Your task to perform on an android device: Go to Reddit.com Image 0: 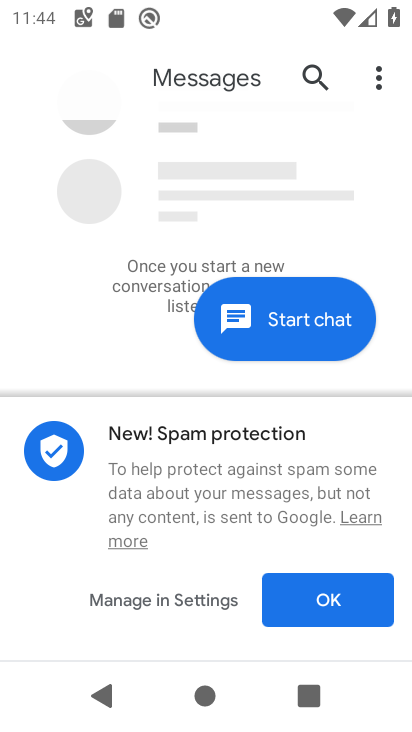
Step 0: press home button
Your task to perform on an android device: Go to Reddit.com Image 1: 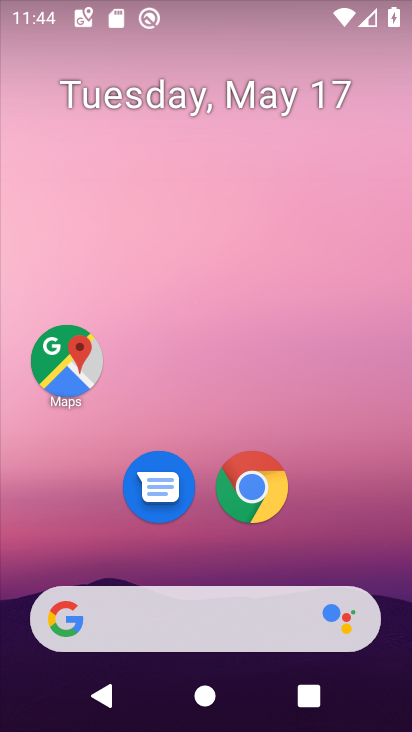
Step 1: click (240, 513)
Your task to perform on an android device: Go to Reddit.com Image 2: 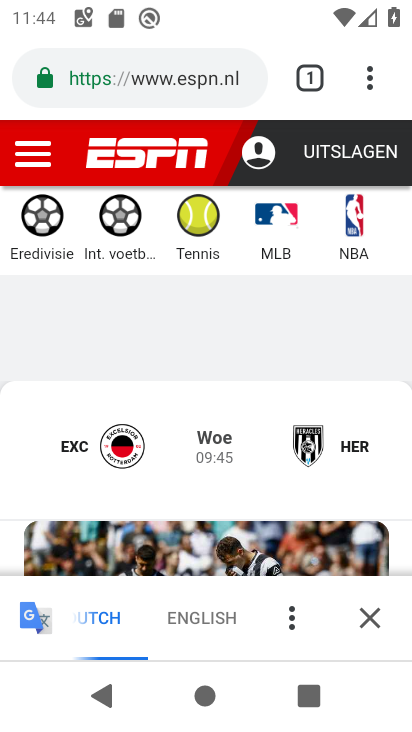
Step 2: click (207, 87)
Your task to perform on an android device: Go to Reddit.com Image 3: 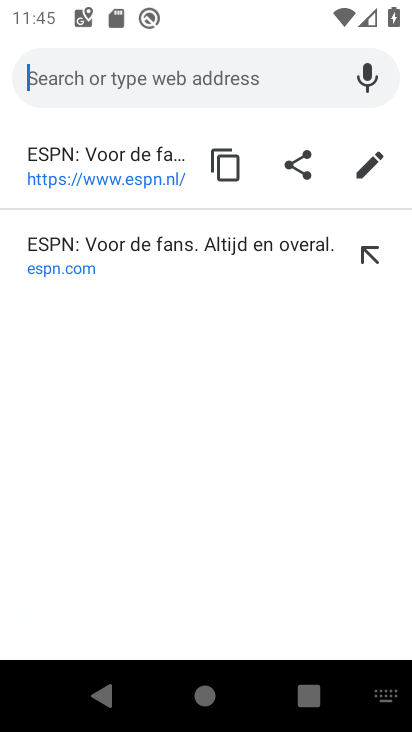
Step 3: type "reddit.com"
Your task to perform on an android device: Go to Reddit.com Image 4: 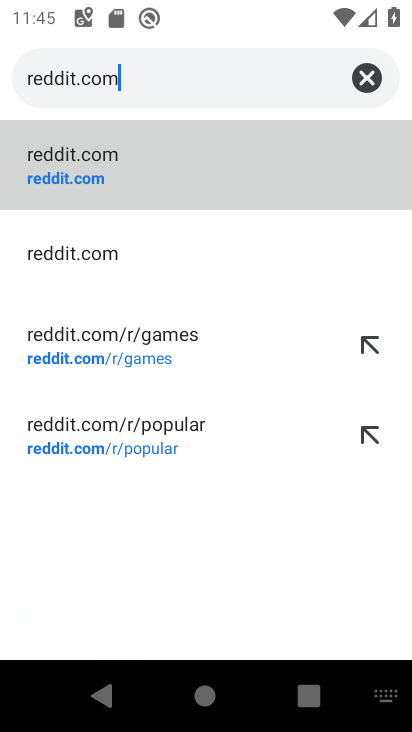
Step 4: click (95, 176)
Your task to perform on an android device: Go to Reddit.com Image 5: 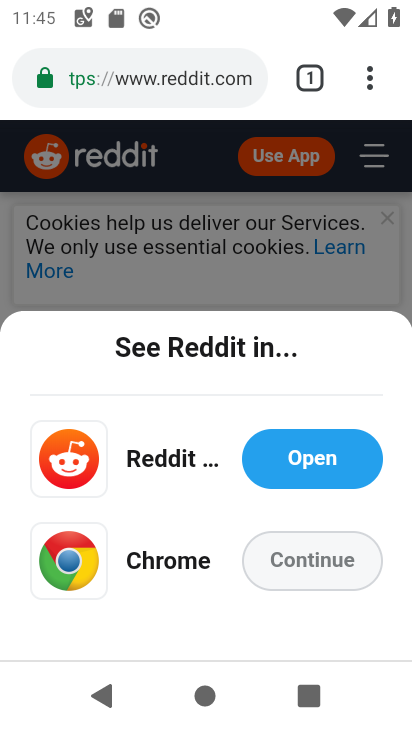
Step 5: task complete